Your task to perform on an android device: Open ESPN.com Image 0: 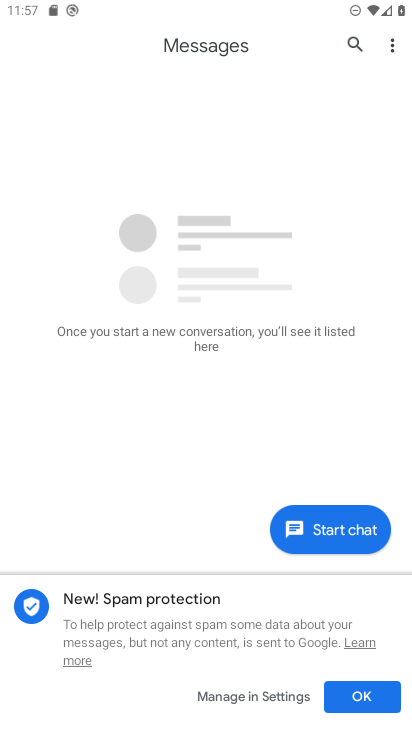
Step 0: press home button
Your task to perform on an android device: Open ESPN.com Image 1: 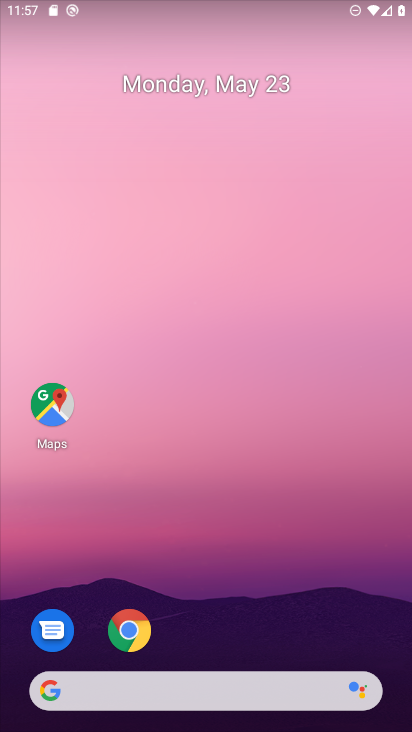
Step 1: click (130, 635)
Your task to perform on an android device: Open ESPN.com Image 2: 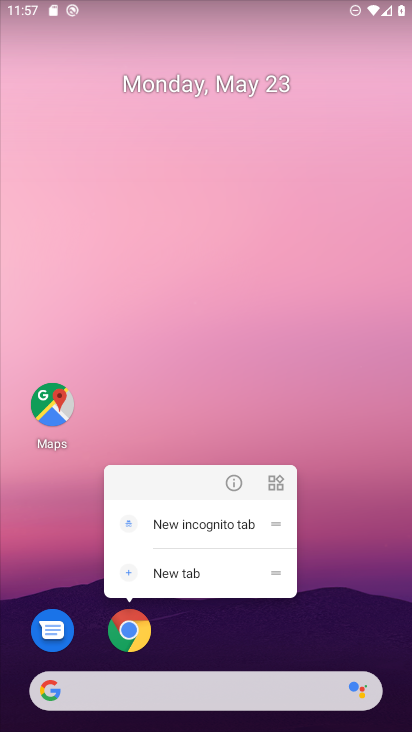
Step 2: click (127, 635)
Your task to perform on an android device: Open ESPN.com Image 3: 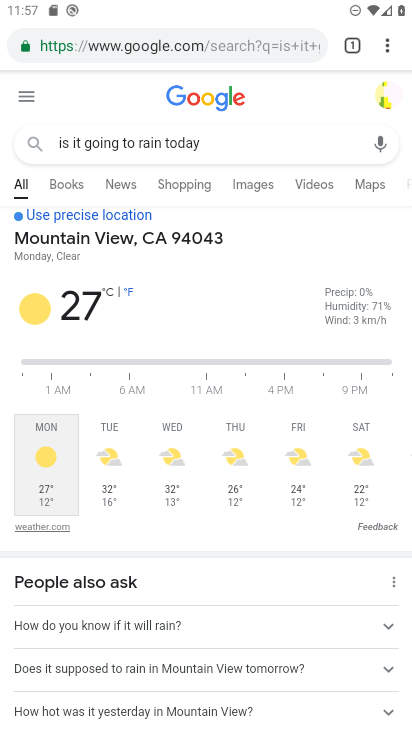
Step 3: click (134, 53)
Your task to perform on an android device: Open ESPN.com Image 4: 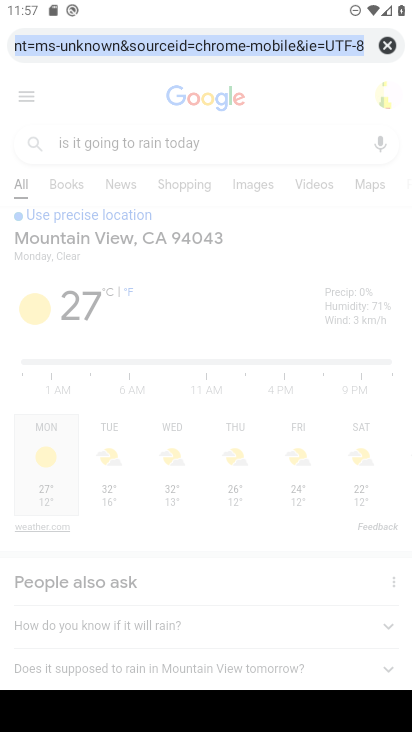
Step 4: type "ESPN.com"
Your task to perform on an android device: Open ESPN.com Image 5: 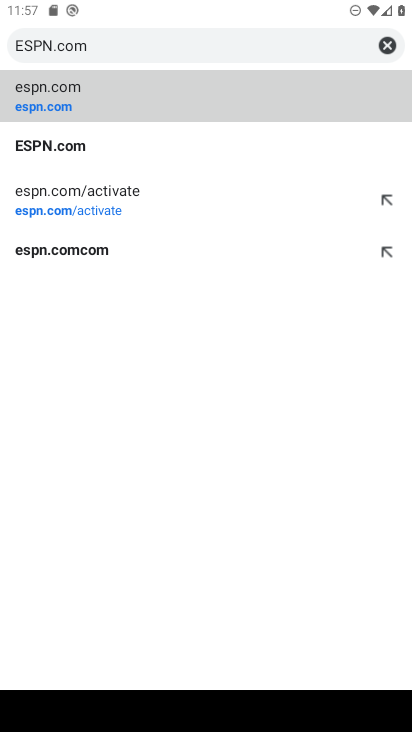
Step 5: click (68, 107)
Your task to perform on an android device: Open ESPN.com Image 6: 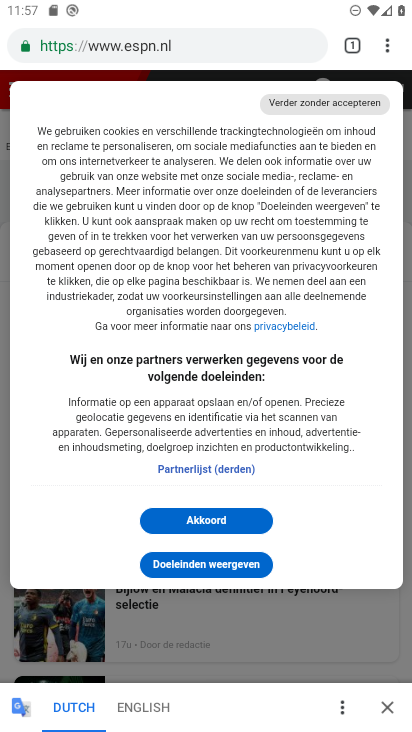
Step 6: task complete